Your task to perform on an android device: Open Youtube and go to "Your channel" Image 0: 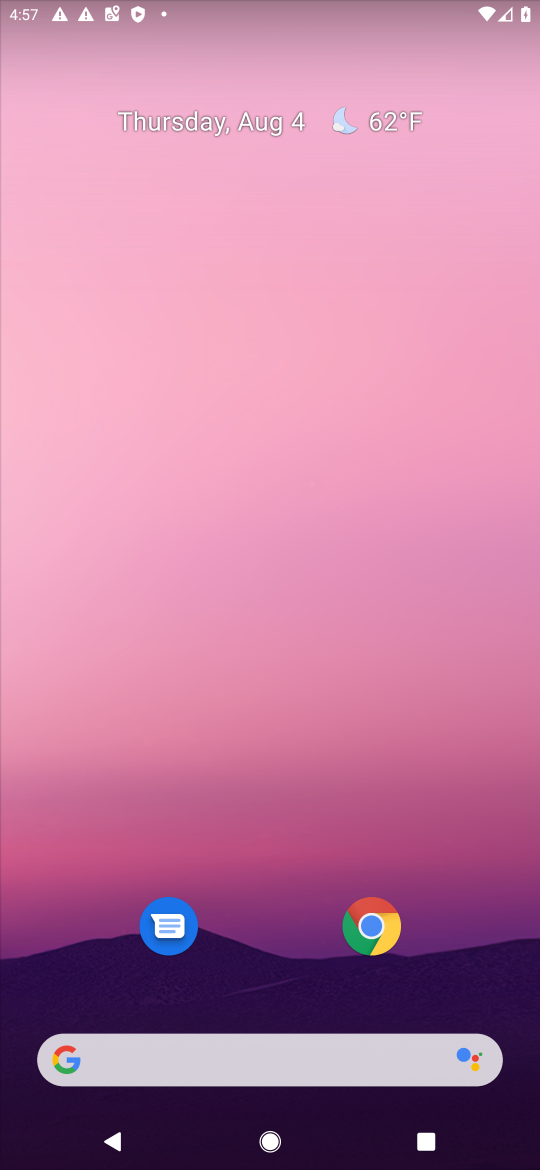
Step 0: drag from (286, 1017) to (339, 111)
Your task to perform on an android device: Open Youtube and go to "Your channel" Image 1: 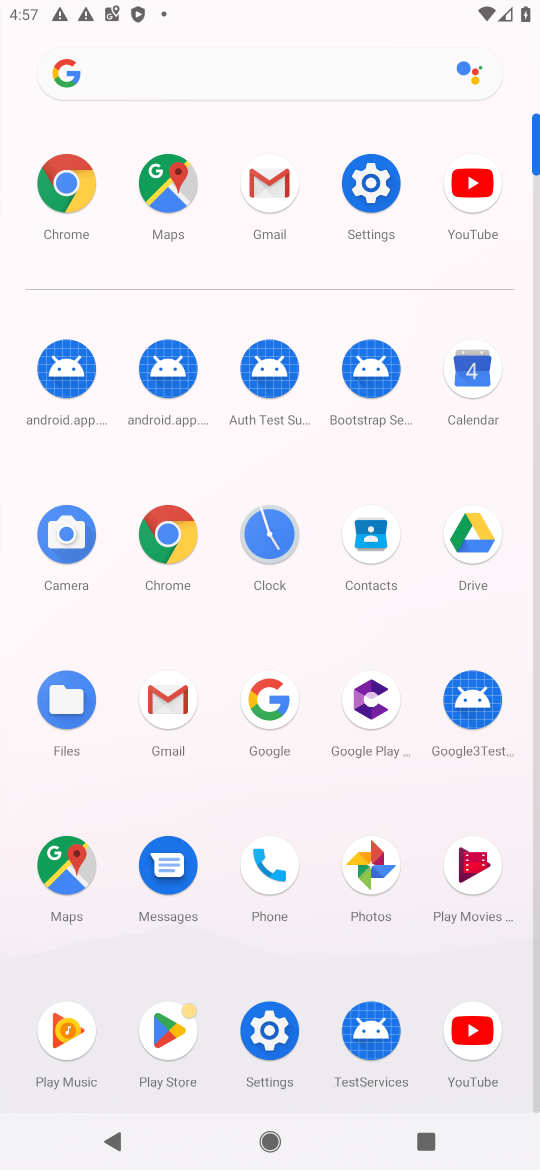
Step 1: click (499, 1032)
Your task to perform on an android device: Open Youtube and go to "Your channel" Image 2: 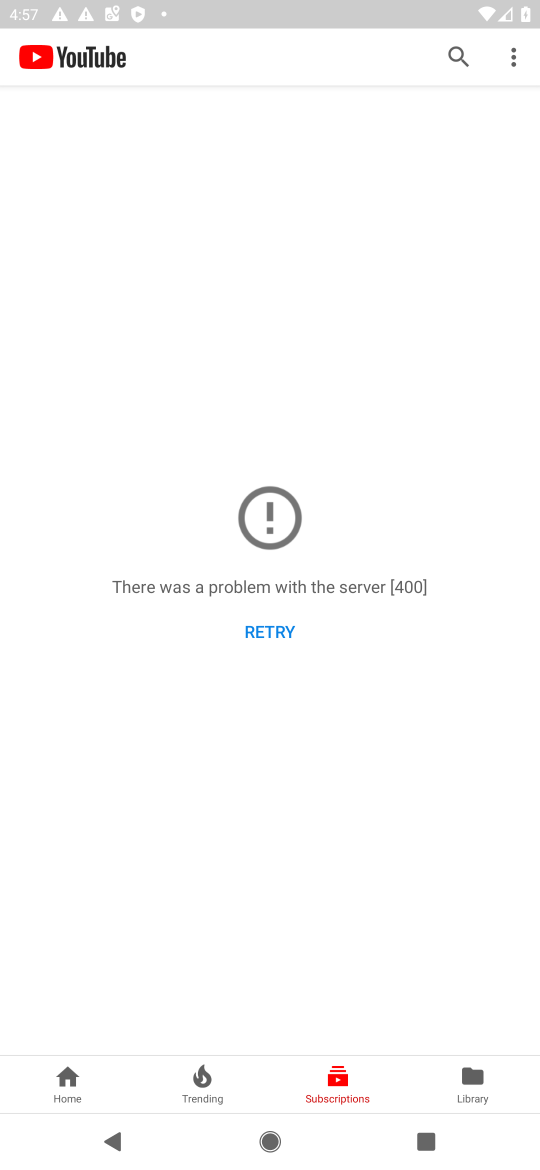
Step 2: click (280, 643)
Your task to perform on an android device: Open Youtube and go to "Your channel" Image 3: 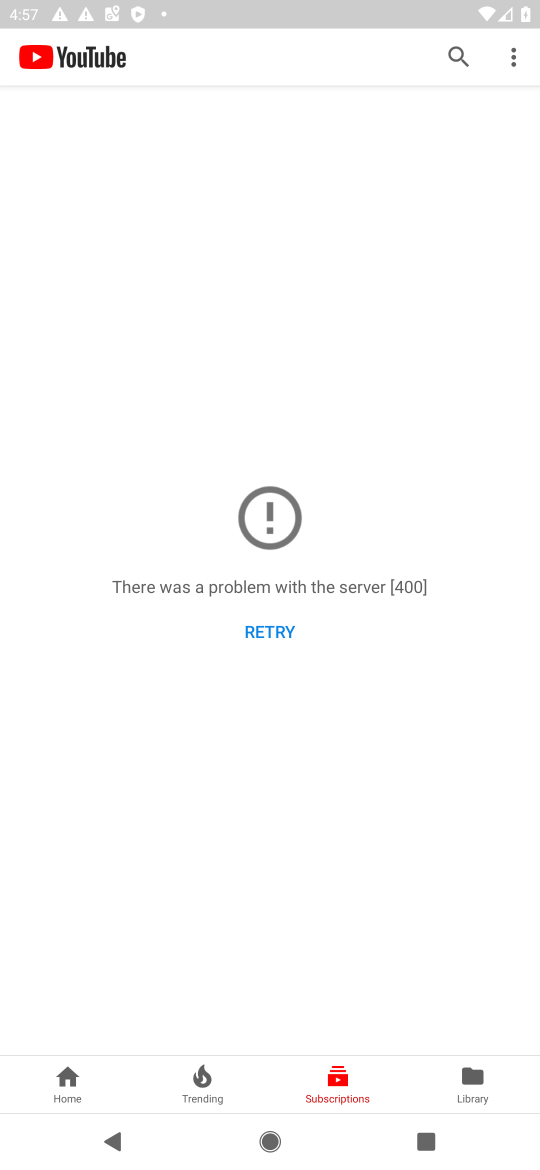
Step 3: click (276, 646)
Your task to perform on an android device: Open Youtube and go to "Your channel" Image 4: 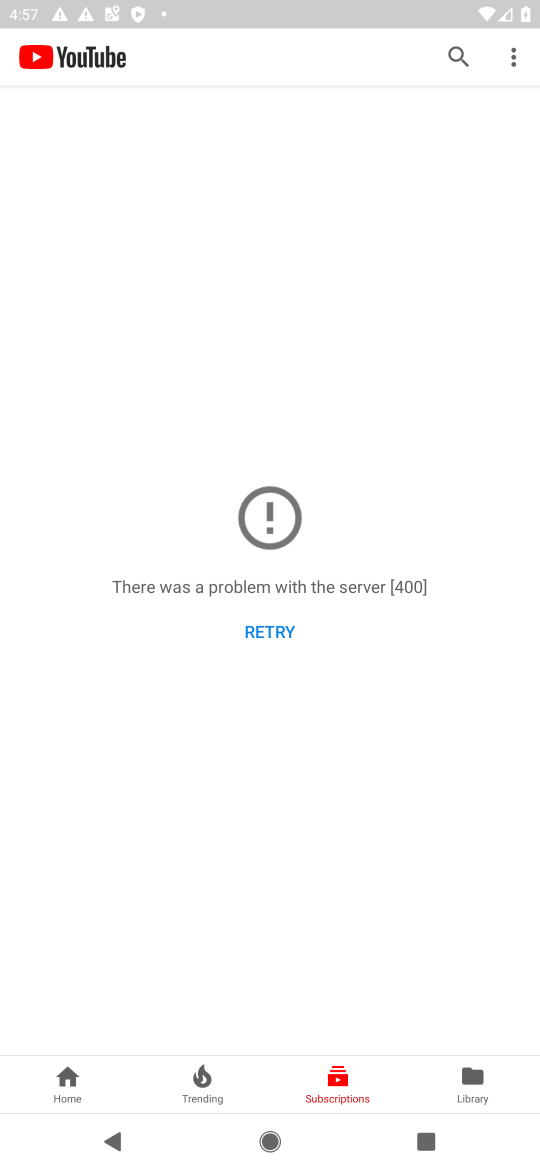
Step 4: task complete